Your task to perform on an android device: toggle priority inbox in the gmail app Image 0: 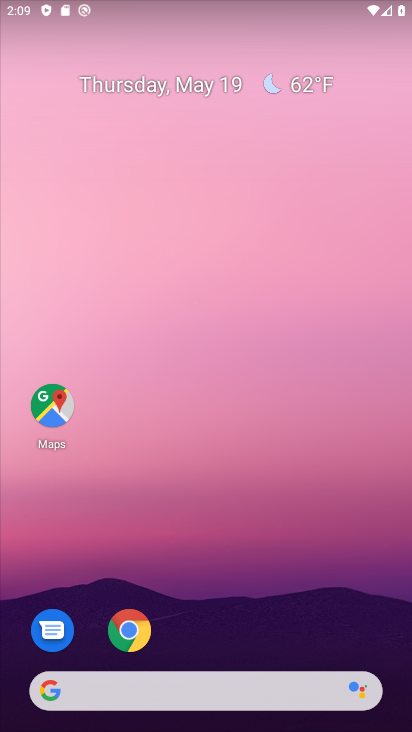
Step 0: drag from (351, 630) to (350, 202)
Your task to perform on an android device: toggle priority inbox in the gmail app Image 1: 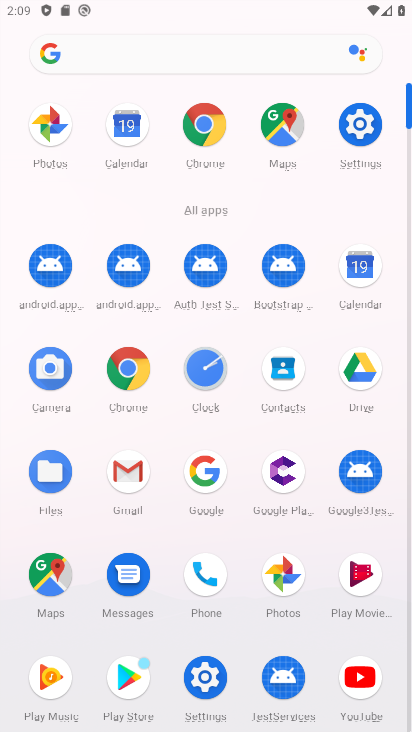
Step 1: click (122, 459)
Your task to perform on an android device: toggle priority inbox in the gmail app Image 2: 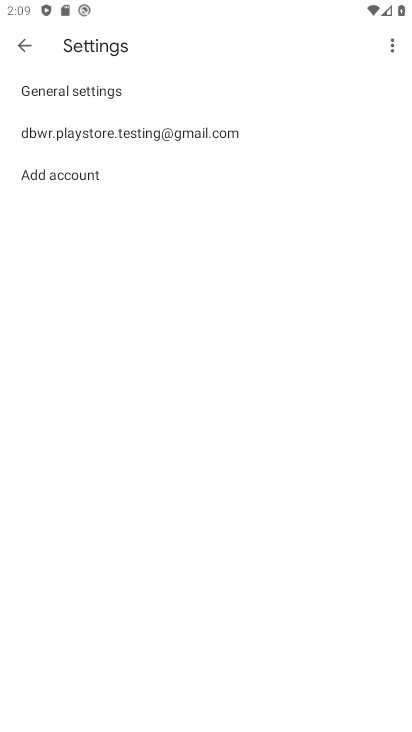
Step 2: click (213, 145)
Your task to perform on an android device: toggle priority inbox in the gmail app Image 3: 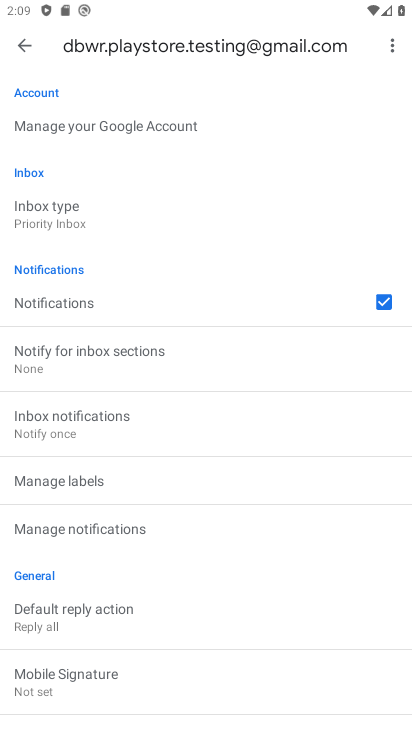
Step 3: click (149, 222)
Your task to perform on an android device: toggle priority inbox in the gmail app Image 4: 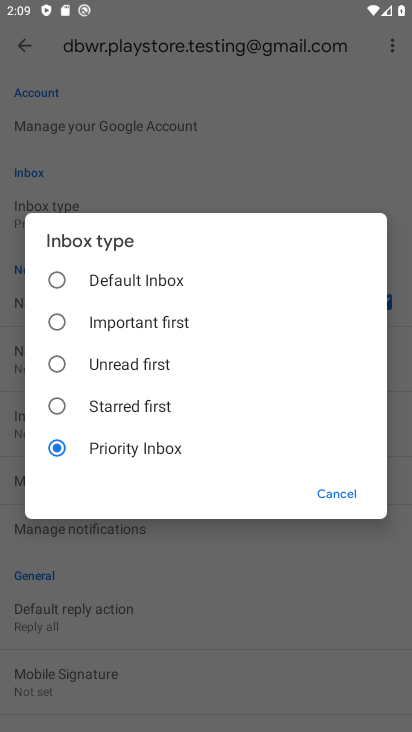
Step 4: click (141, 279)
Your task to perform on an android device: toggle priority inbox in the gmail app Image 5: 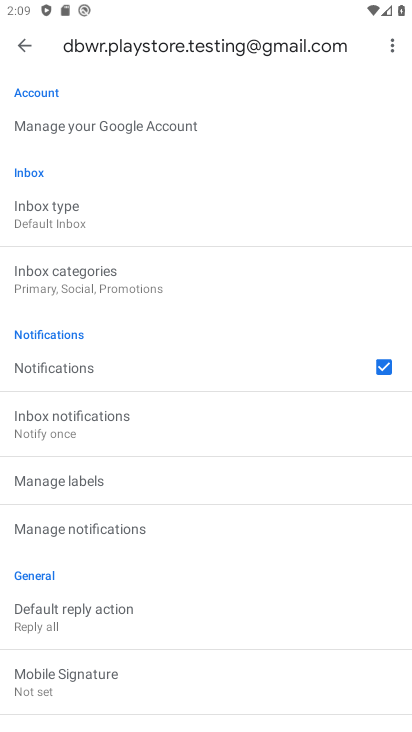
Step 5: task complete